Your task to perform on an android device: Go to privacy settings Image 0: 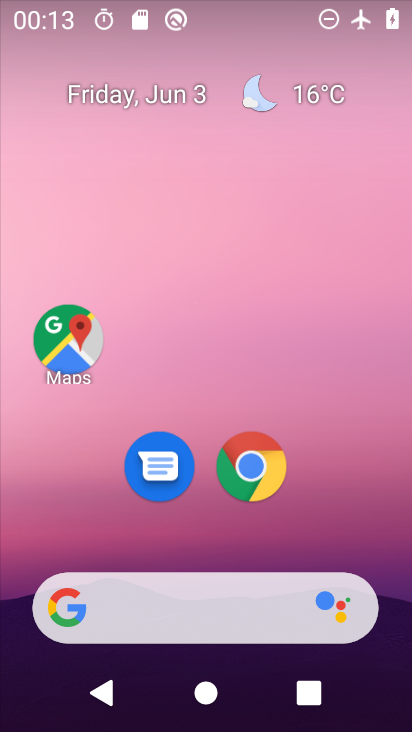
Step 0: drag from (203, 549) to (195, 156)
Your task to perform on an android device: Go to privacy settings Image 1: 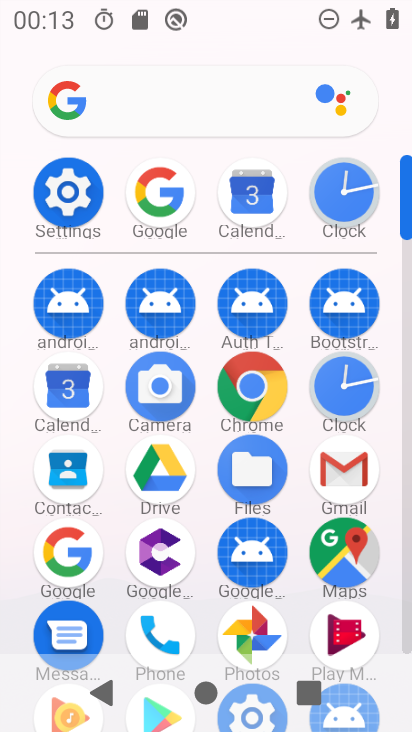
Step 1: click (83, 201)
Your task to perform on an android device: Go to privacy settings Image 2: 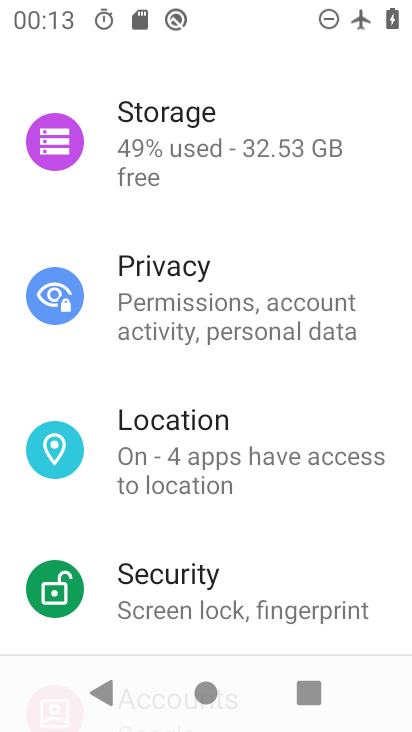
Step 2: click (142, 261)
Your task to perform on an android device: Go to privacy settings Image 3: 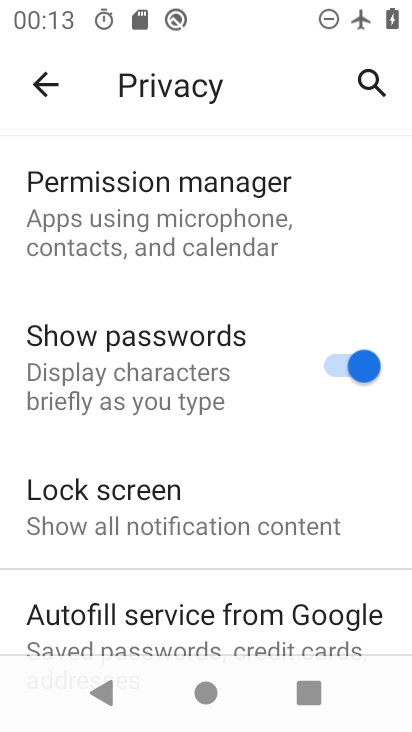
Step 3: task complete